Your task to perform on an android device: Search for sushi restaurants on Maps Image 0: 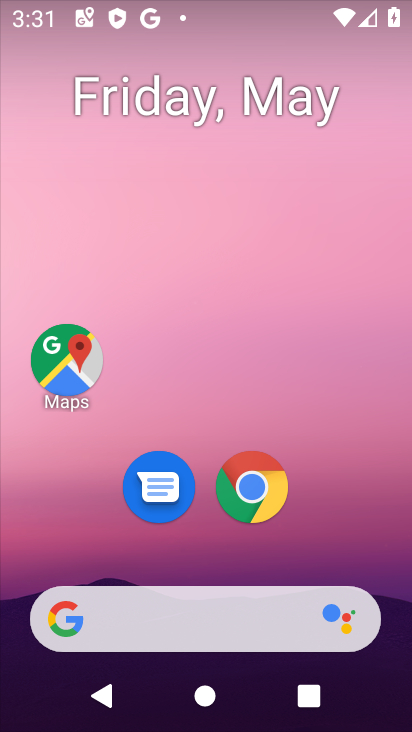
Step 0: drag from (397, 629) to (306, 122)
Your task to perform on an android device: Search for sushi restaurants on Maps Image 1: 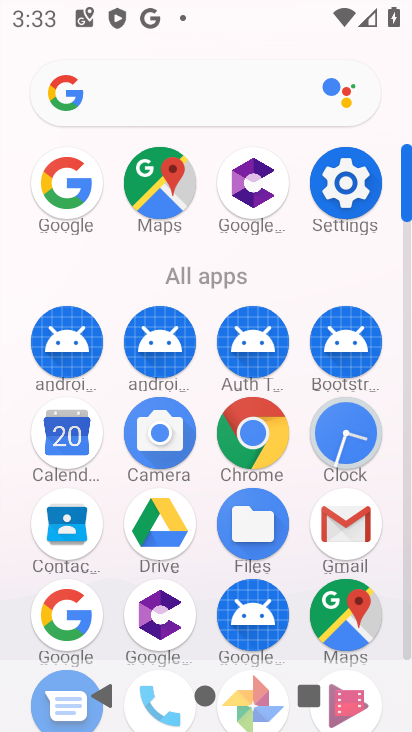
Step 1: click (358, 613)
Your task to perform on an android device: Search for sushi restaurants on Maps Image 2: 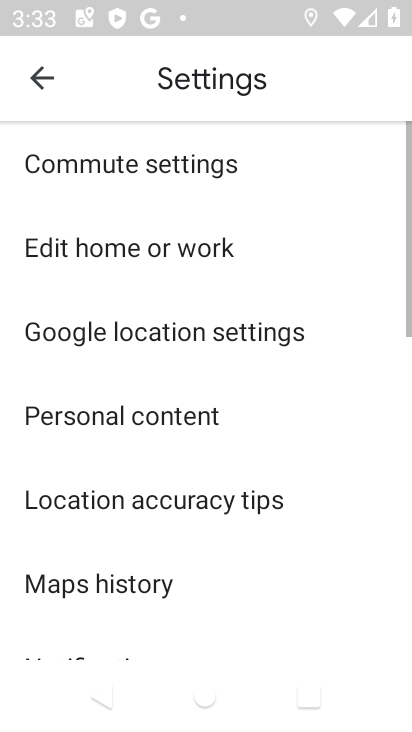
Step 2: press back button
Your task to perform on an android device: Search for sushi restaurants on Maps Image 3: 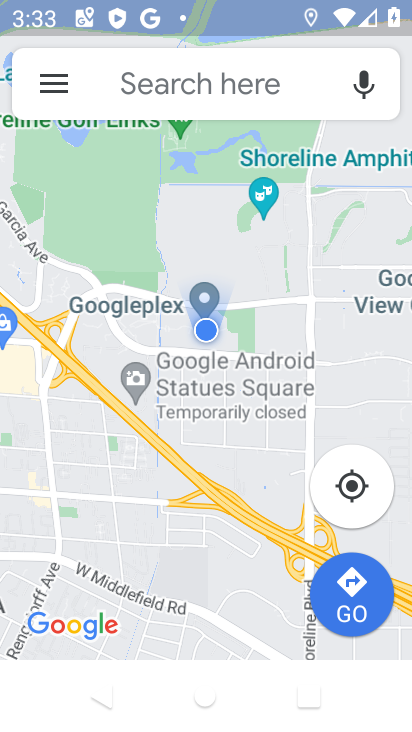
Step 3: click (200, 82)
Your task to perform on an android device: Search for sushi restaurants on Maps Image 4: 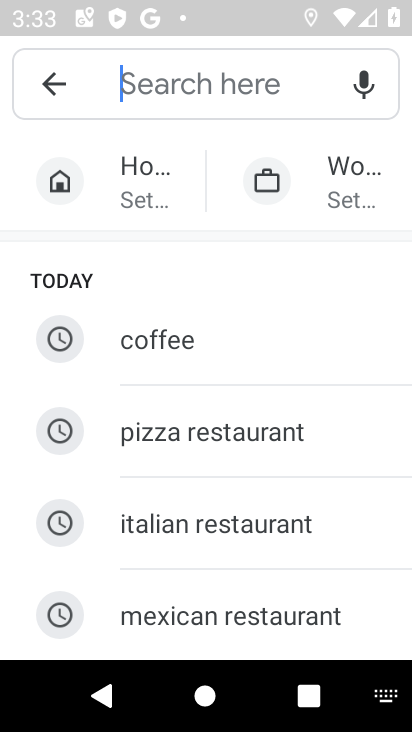
Step 4: drag from (154, 593) to (180, 173)
Your task to perform on an android device: Search for sushi restaurants on Maps Image 5: 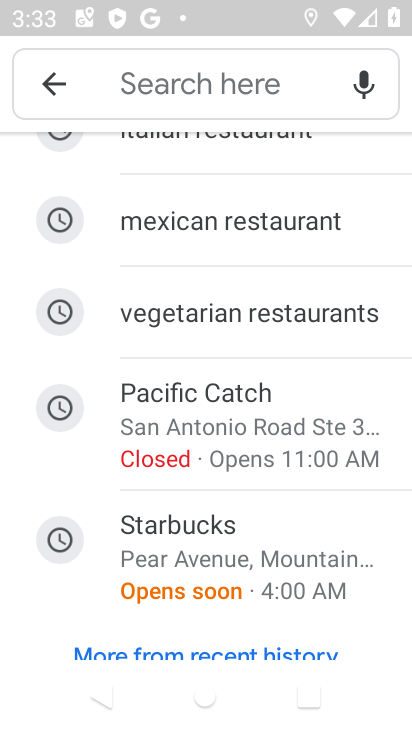
Step 5: drag from (177, 539) to (206, 161)
Your task to perform on an android device: Search for sushi restaurants on Maps Image 6: 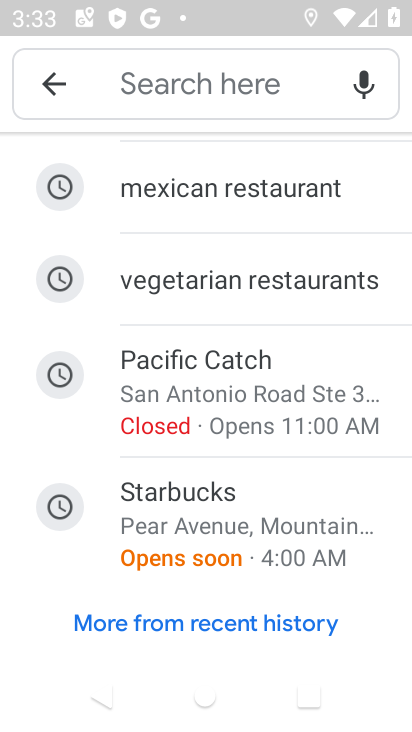
Step 6: click (168, 84)
Your task to perform on an android device: Search for sushi restaurants on Maps Image 7: 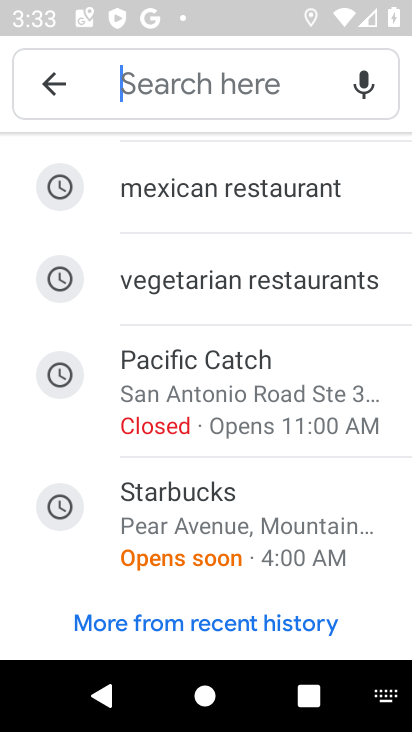
Step 7: type "sushi restaurants"
Your task to perform on an android device: Search for sushi restaurants on Maps Image 8: 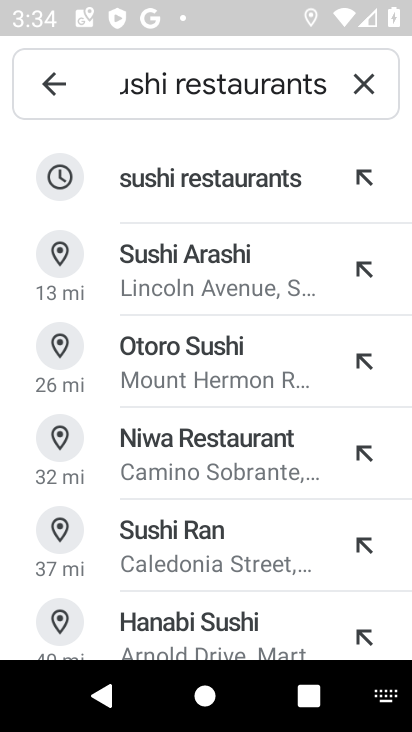
Step 8: click (181, 186)
Your task to perform on an android device: Search for sushi restaurants on Maps Image 9: 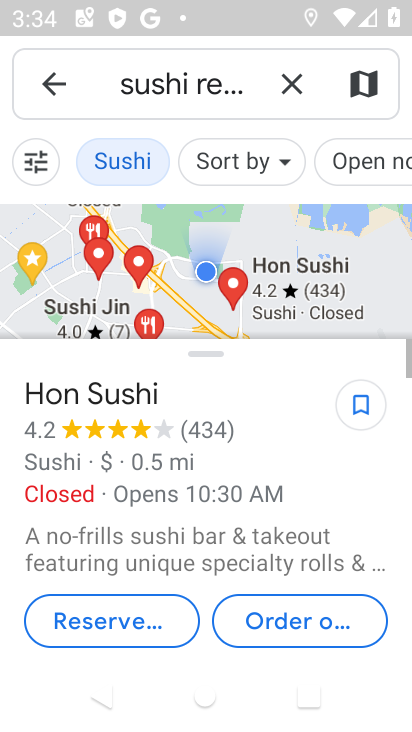
Step 9: task complete